Your task to perform on an android device: Open Google Maps Image 0: 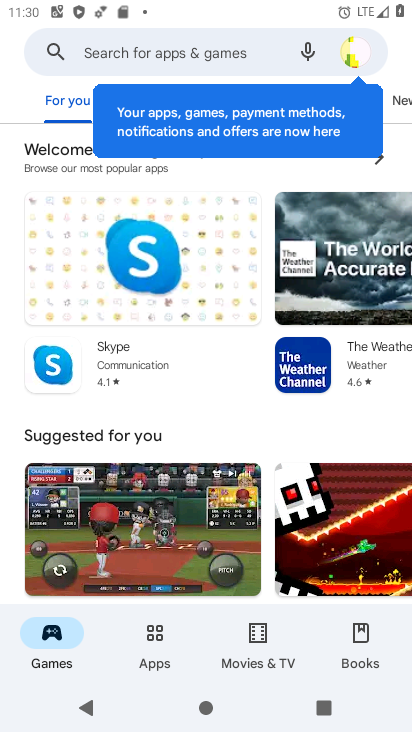
Step 0: press home button
Your task to perform on an android device: Open Google Maps Image 1: 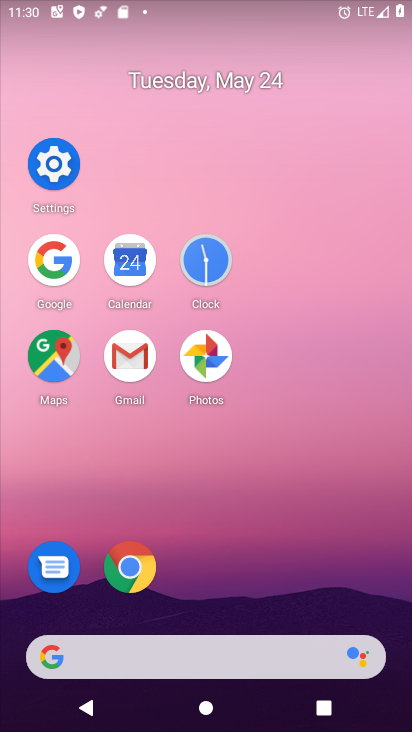
Step 1: click (54, 350)
Your task to perform on an android device: Open Google Maps Image 2: 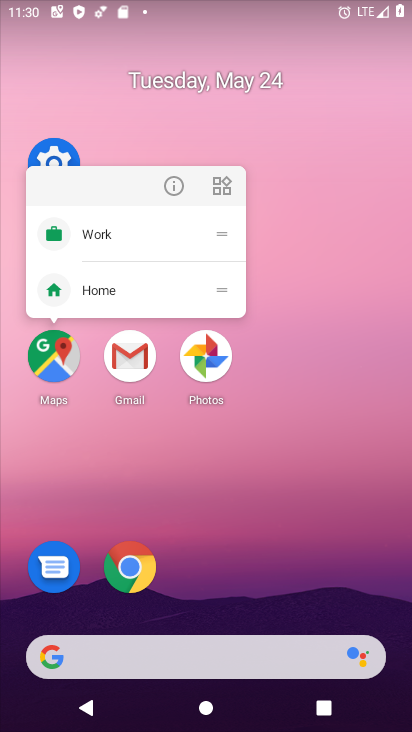
Step 2: click (50, 357)
Your task to perform on an android device: Open Google Maps Image 3: 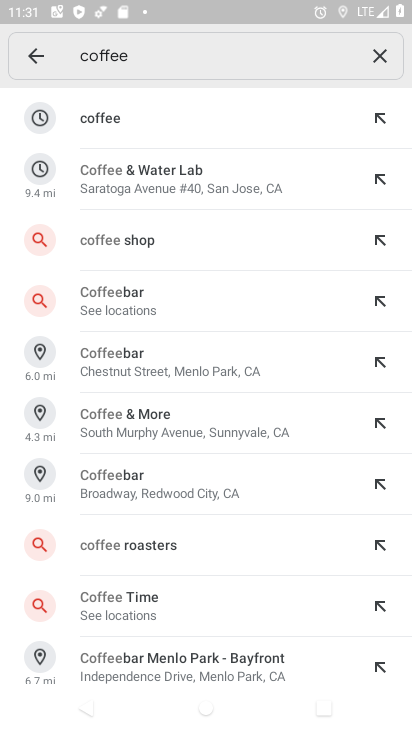
Step 3: task complete